Your task to perform on an android device: add a label to a message in the gmail app Image 0: 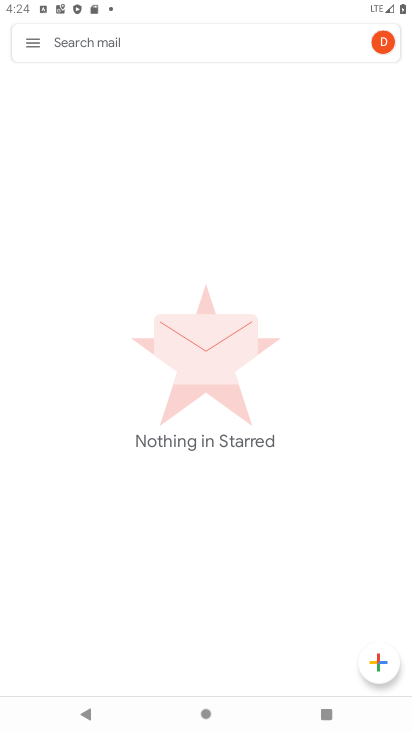
Step 0: click (22, 41)
Your task to perform on an android device: add a label to a message in the gmail app Image 1: 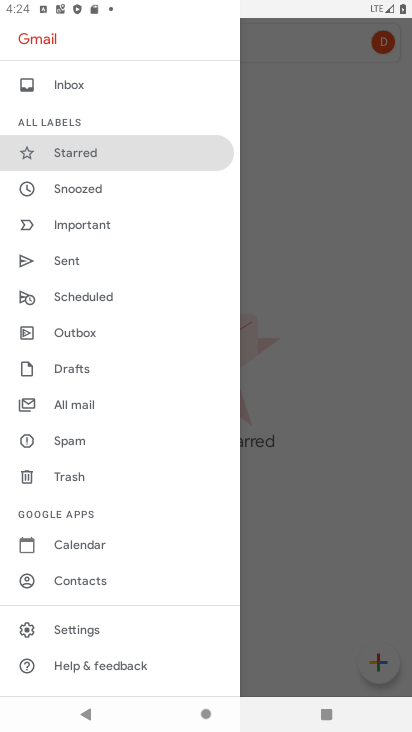
Step 1: click (67, 397)
Your task to perform on an android device: add a label to a message in the gmail app Image 2: 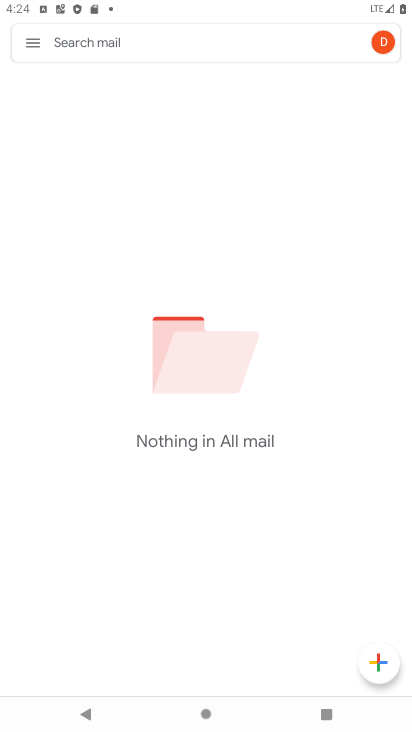
Step 2: task complete